Your task to perform on an android device: Open wifi settings Image 0: 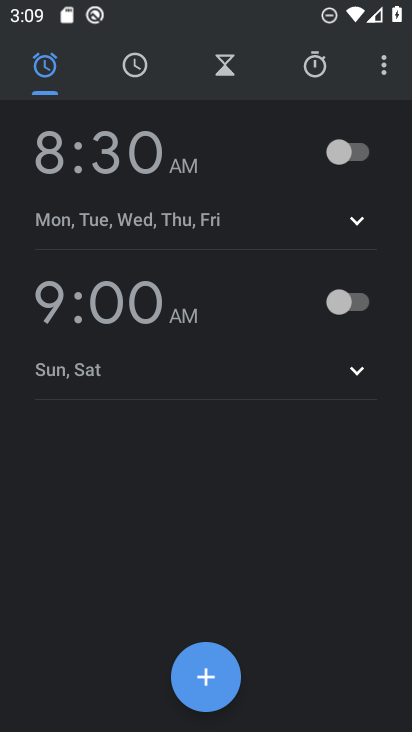
Step 0: press home button
Your task to perform on an android device: Open wifi settings Image 1: 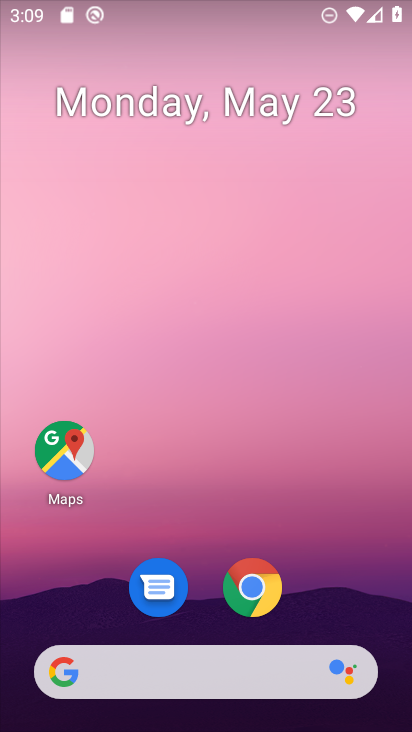
Step 1: drag from (187, 634) to (224, 38)
Your task to perform on an android device: Open wifi settings Image 2: 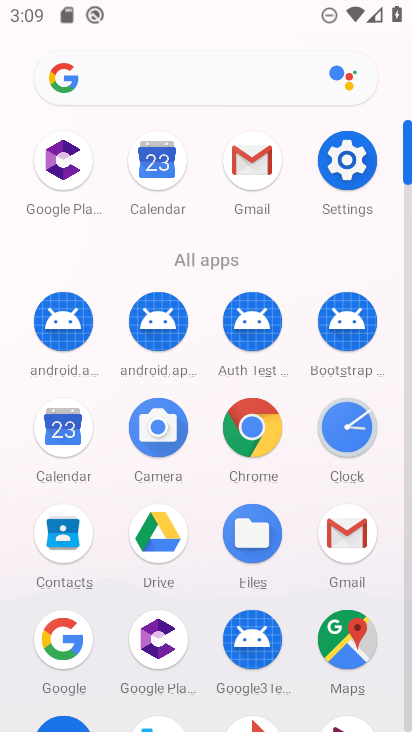
Step 2: click (350, 170)
Your task to perform on an android device: Open wifi settings Image 3: 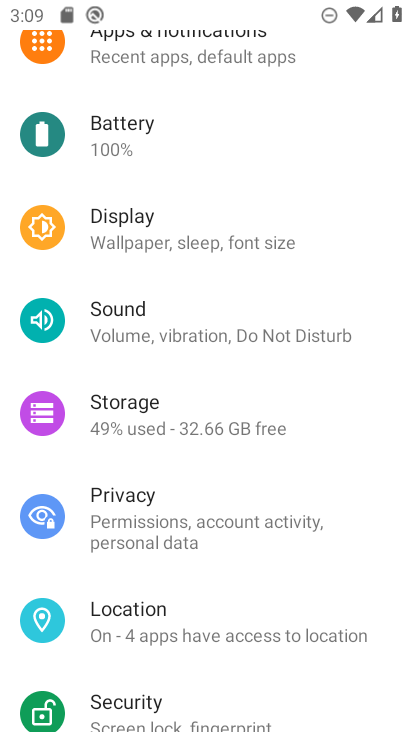
Step 3: drag from (205, 246) to (160, 726)
Your task to perform on an android device: Open wifi settings Image 4: 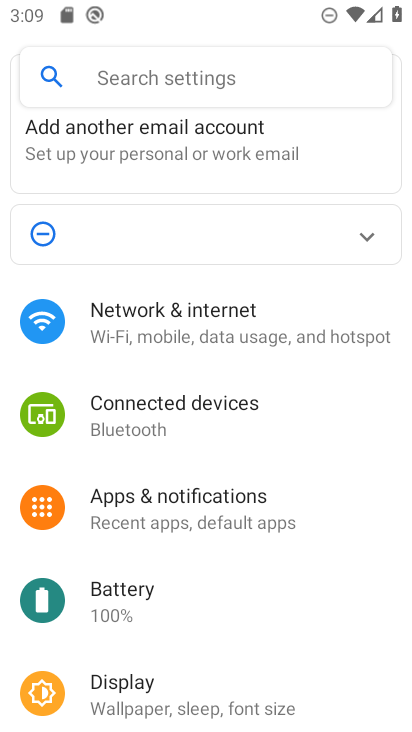
Step 4: click (227, 332)
Your task to perform on an android device: Open wifi settings Image 5: 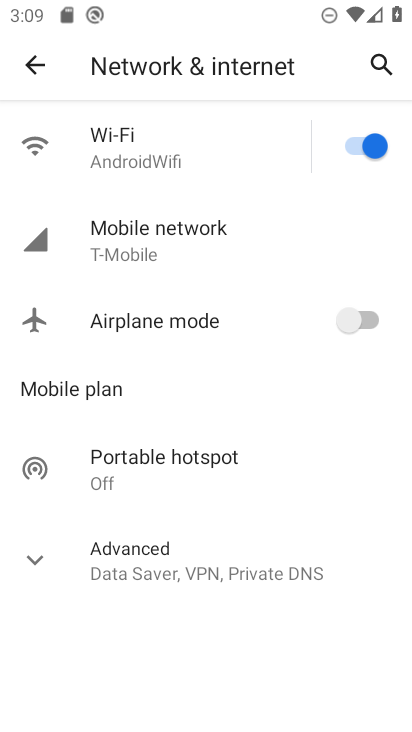
Step 5: click (158, 150)
Your task to perform on an android device: Open wifi settings Image 6: 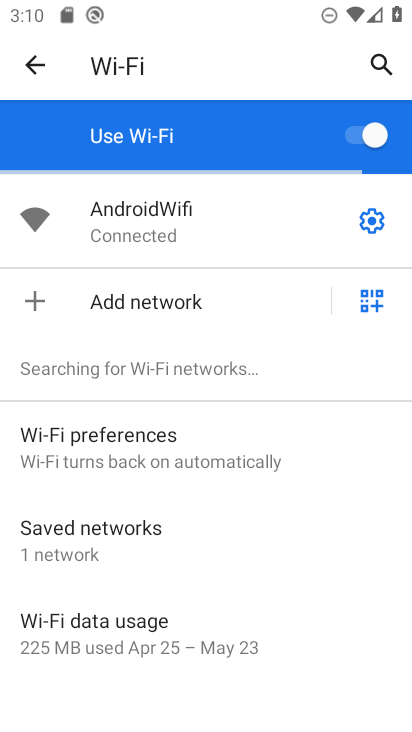
Step 6: task complete